Your task to perform on an android device: open app "Speedtest by Ookla" (install if not already installed) and enter user name: "hyena@outlook.com" and password: "terminators" Image 0: 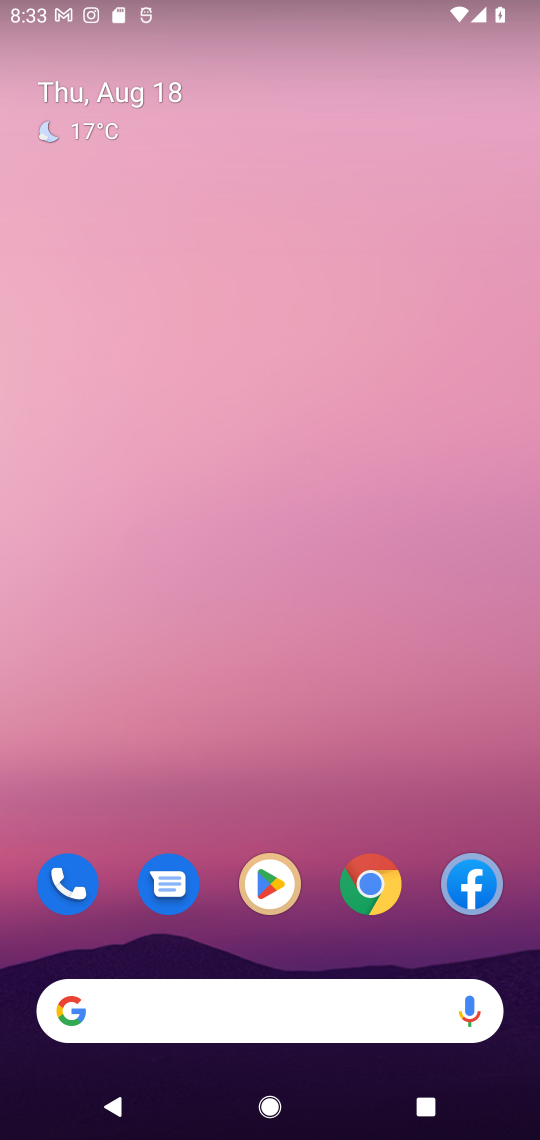
Step 0: drag from (192, 1012) to (329, 303)
Your task to perform on an android device: open app "Speedtest by Ookla" (install if not already installed) and enter user name: "hyena@outlook.com" and password: "terminators" Image 1: 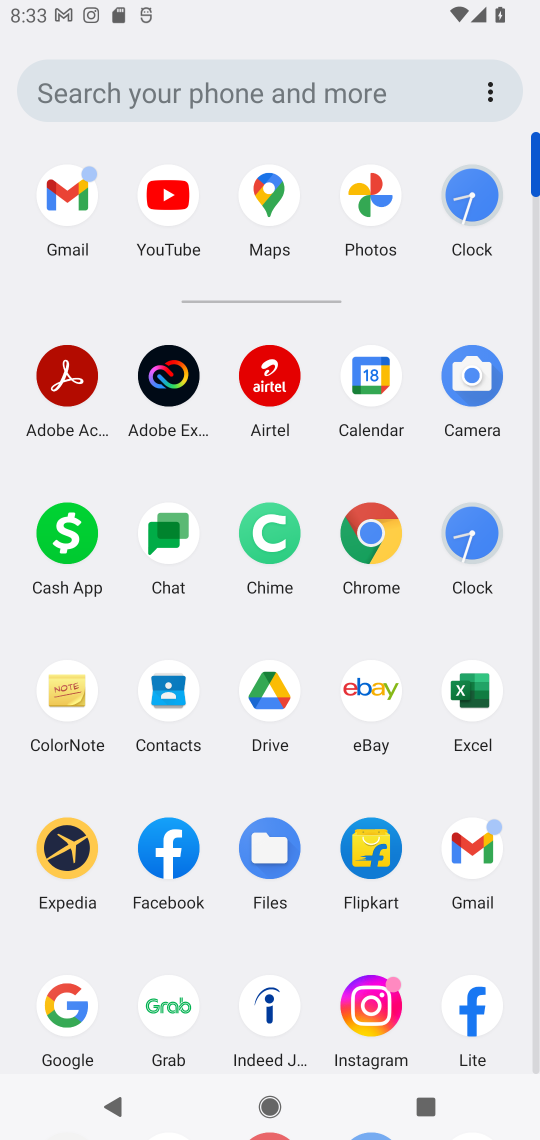
Step 1: drag from (314, 966) to (370, 213)
Your task to perform on an android device: open app "Speedtest by Ookla" (install if not already installed) and enter user name: "hyena@outlook.com" and password: "terminators" Image 2: 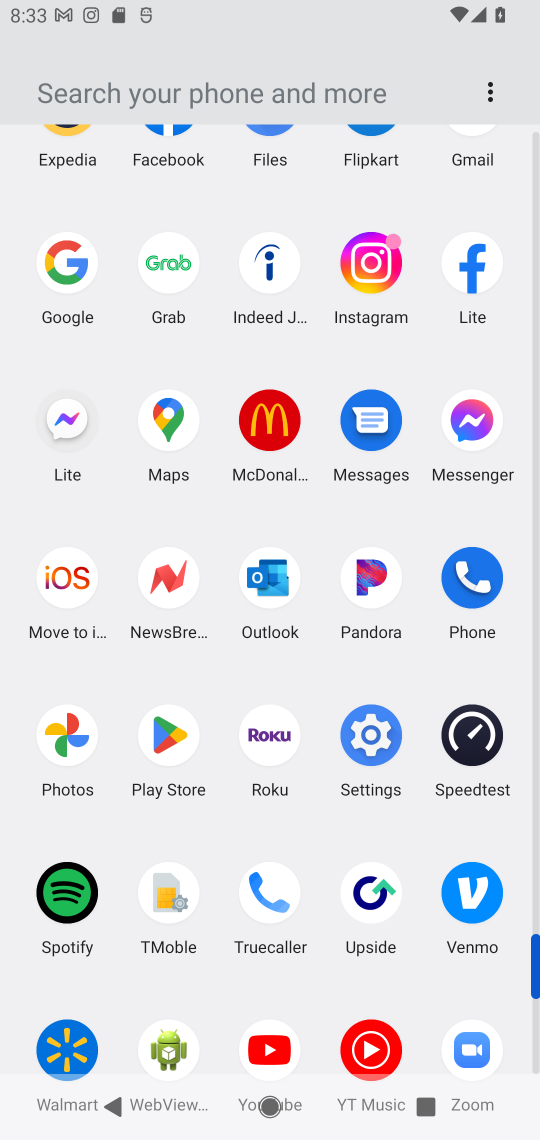
Step 2: click (171, 742)
Your task to perform on an android device: open app "Speedtest by Ookla" (install if not already installed) and enter user name: "hyena@outlook.com" and password: "terminators" Image 3: 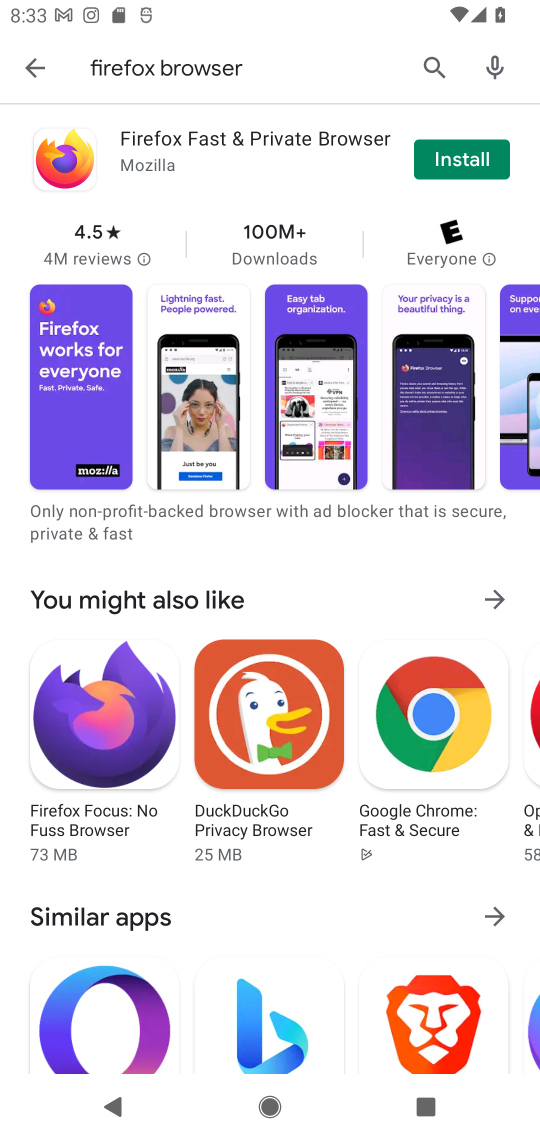
Step 3: press back button
Your task to perform on an android device: open app "Speedtest by Ookla" (install if not already installed) and enter user name: "hyena@outlook.com" and password: "terminators" Image 4: 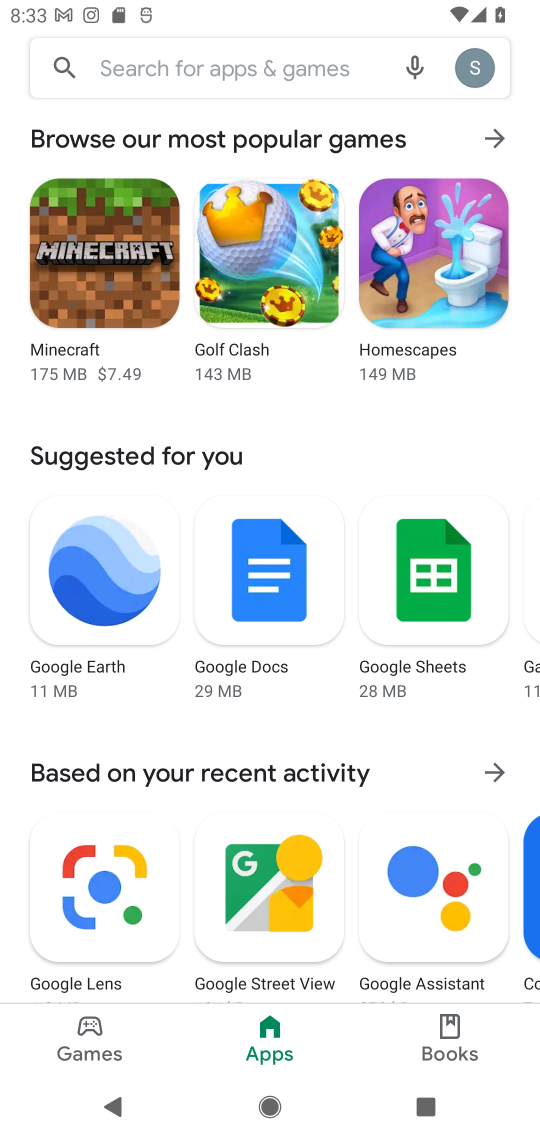
Step 4: click (268, 65)
Your task to perform on an android device: open app "Speedtest by Ookla" (install if not already installed) and enter user name: "hyena@outlook.com" and password: "terminators" Image 5: 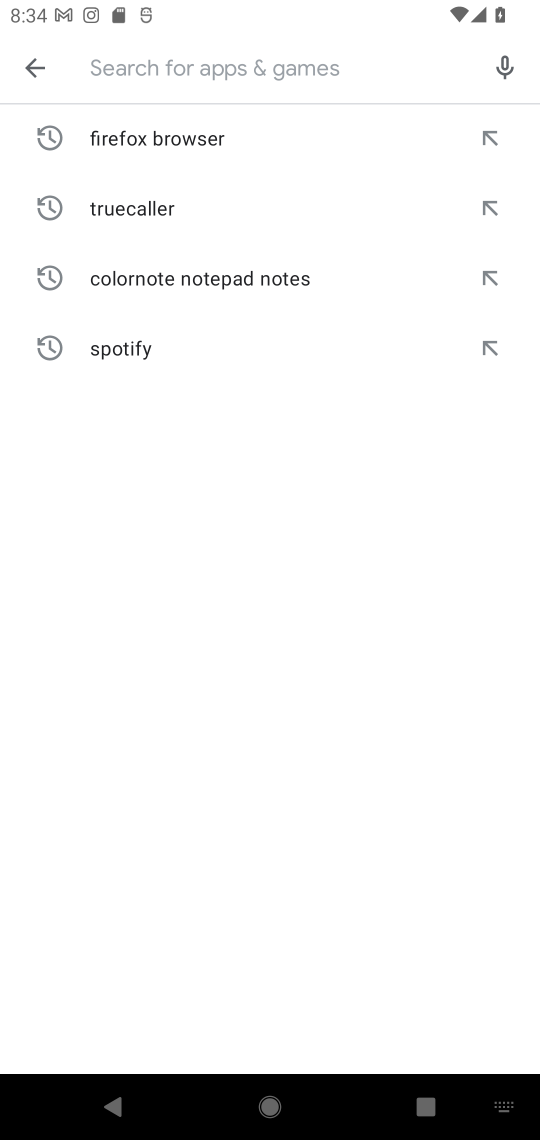
Step 5: type "Speedtest by Ookla"
Your task to perform on an android device: open app "Speedtest by Ookla" (install if not already installed) and enter user name: "hyena@outlook.com" and password: "terminators" Image 6: 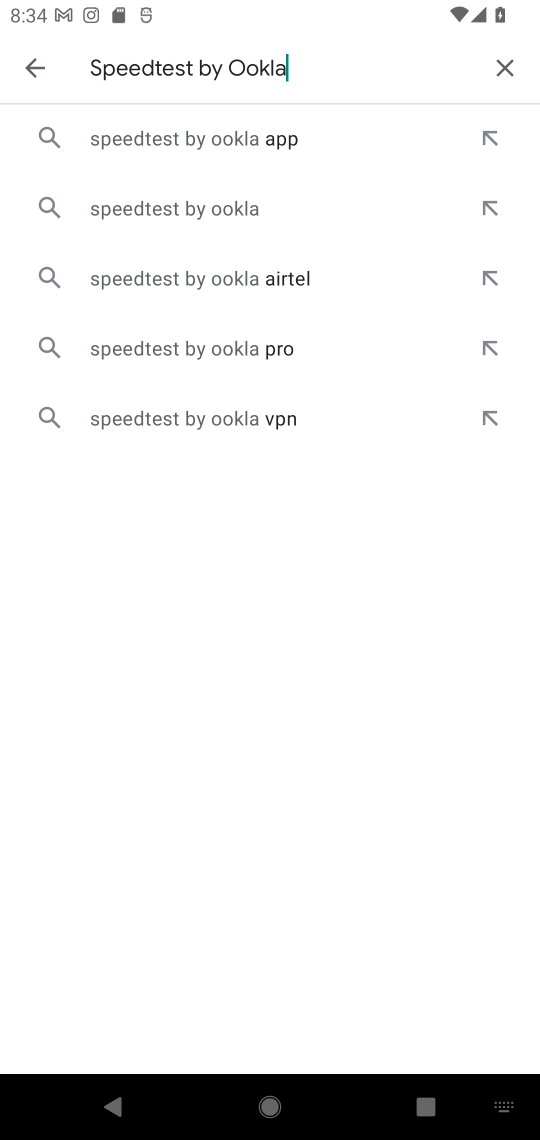
Step 6: click (202, 211)
Your task to perform on an android device: open app "Speedtest by Ookla" (install if not already installed) and enter user name: "hyena@outlook.com" and password: "terminators" Image 7: 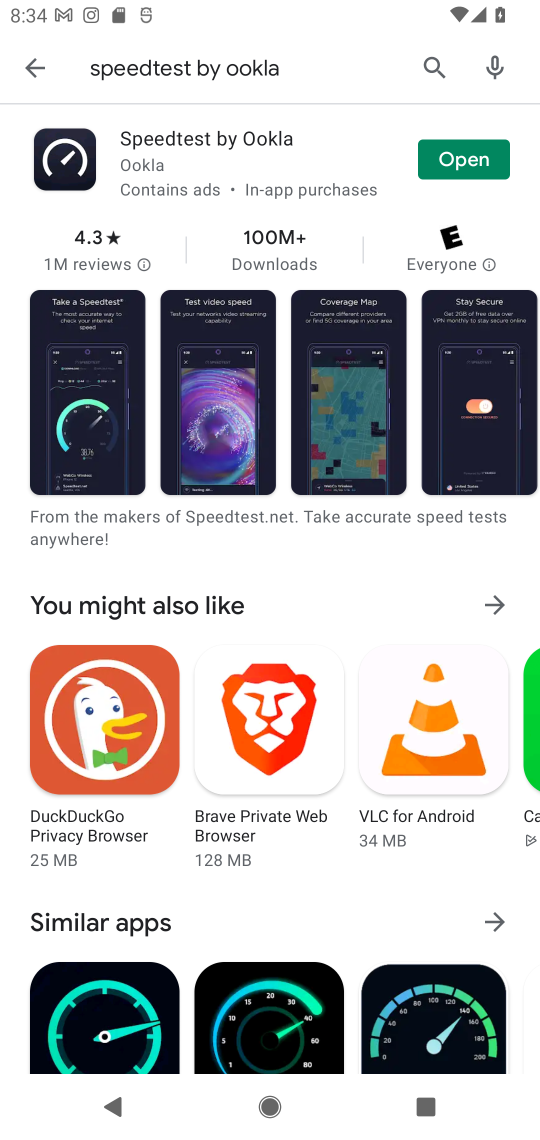
Step 7: click (470, 164)
Your task to perform on an android device: open app "Speedtest by Ookla" (install if not already installed) and enter user name: "hyena@outlook.com" and password: "terminators" Image 8: 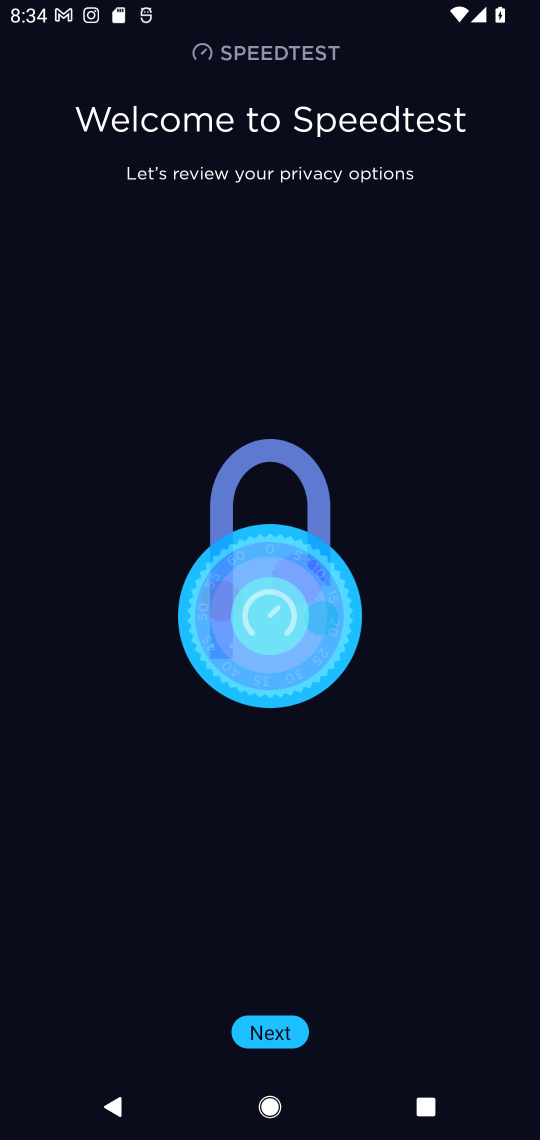
Step 8: click (282, 1033)
Your task to perform on an android device: open app "Speedtest by Ookla" (install if not already installed) and enter user name: "hyena@outlook.com" and password: "terminators" Image 9: 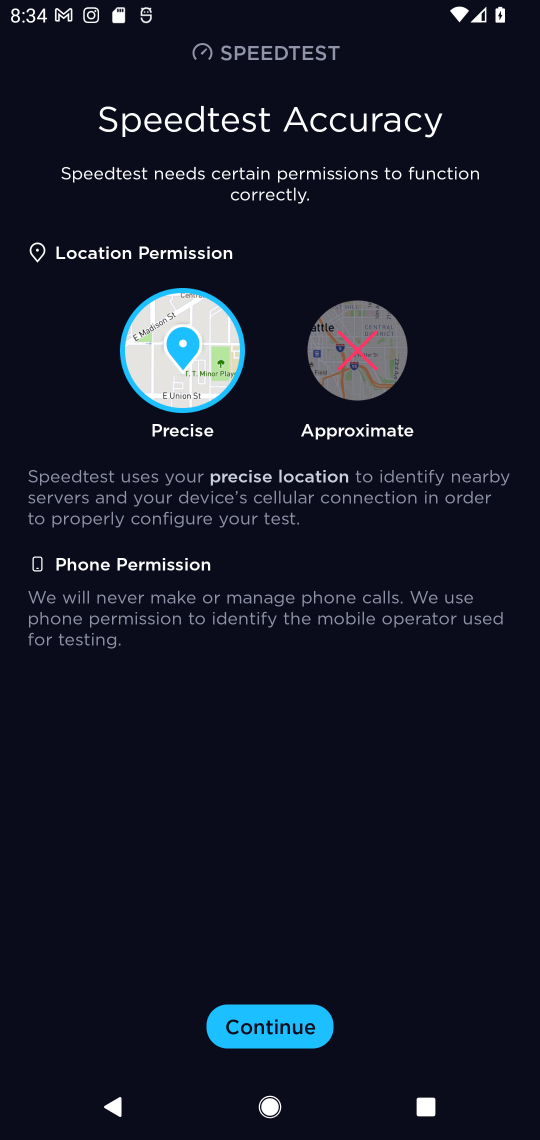
Step 9: click (282, 1033)
Your task to perform on an android device: open app "Speedtest by Ookla" (install if not already installed) and enter user name: "hyena@outlook.com" and password: "terminators" Image 10: 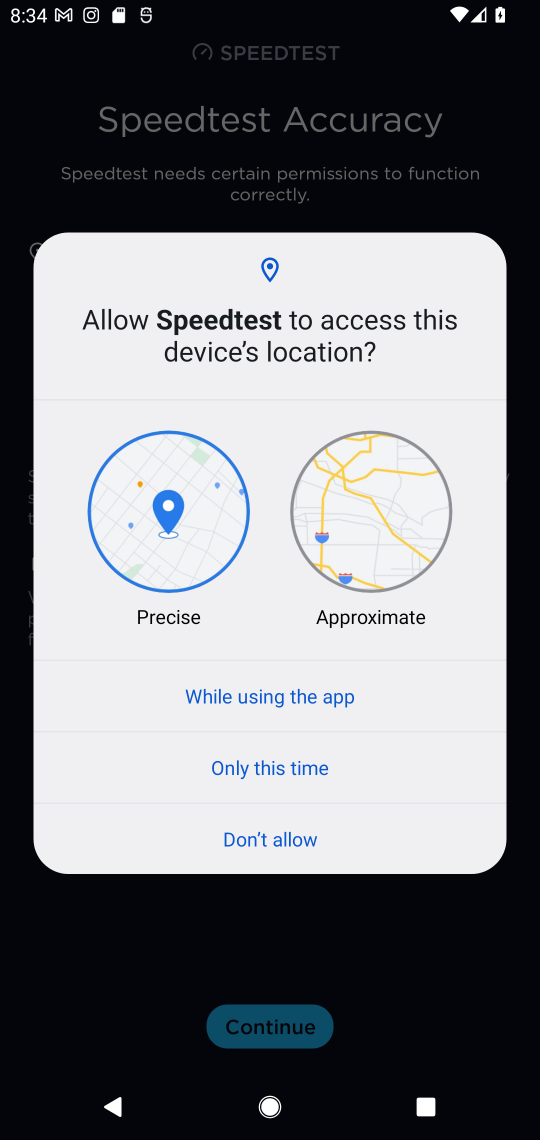
Step 10: click (292, 694)
Your task to perform on an android device: open app "Speedtest by Ookla" (install if not already installed) and enter user name: "hyena@outlook.com" and password: "terminators" Image 11: 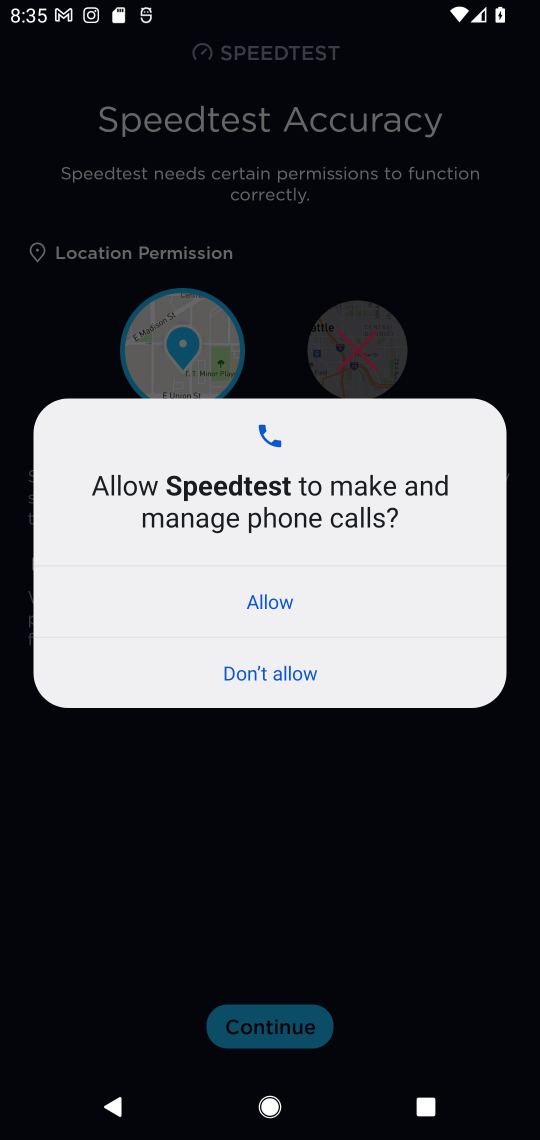
Step 11: click (270, 604)
Your task to perform on an android device: open app "Speedtest by Ookla" (install if not already installed) and enter user name: "hyena@outlook.com" and password: "terminators" Image 12: 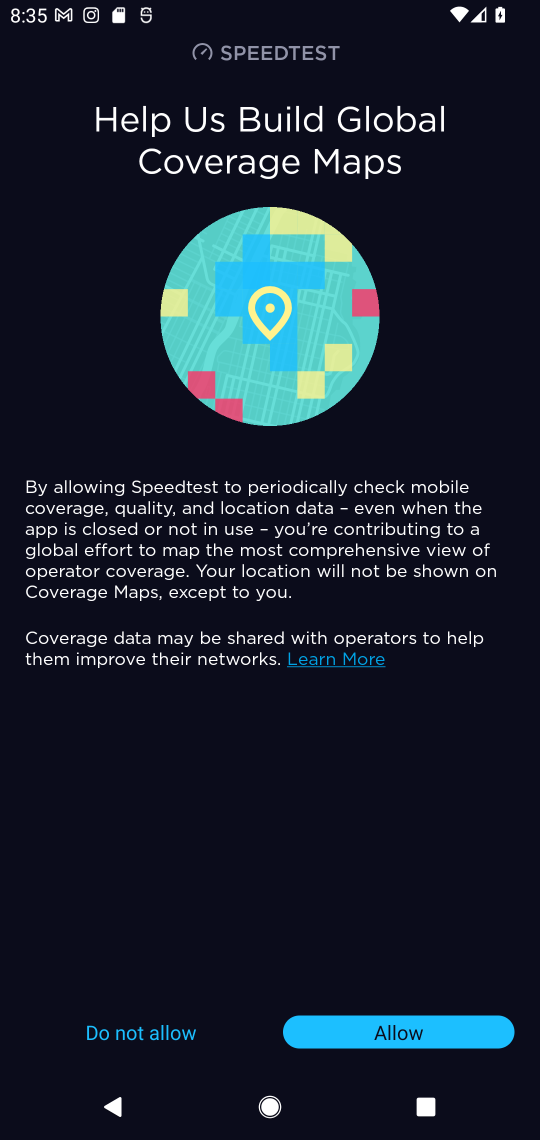
Step 12: click (362, 1033)
Your task to perform on an android device: open app "Speedtest by Ookla" (install if not already installed) and enter user name: "hyena@outlook.com" and password: "terminators" Image 13: 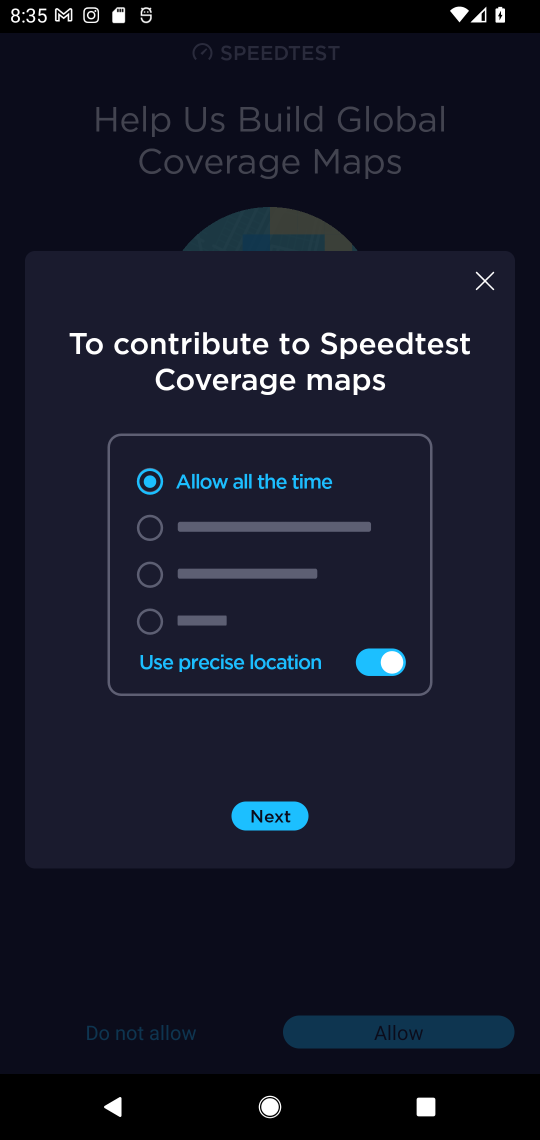
Step 13: click (362, 1033)
Your task to perform on an android device: open app "Speedtest by Ookla" (install if not already installed) and enter user name: "hyena@outlook.com" and password: "terminators" Image 14: 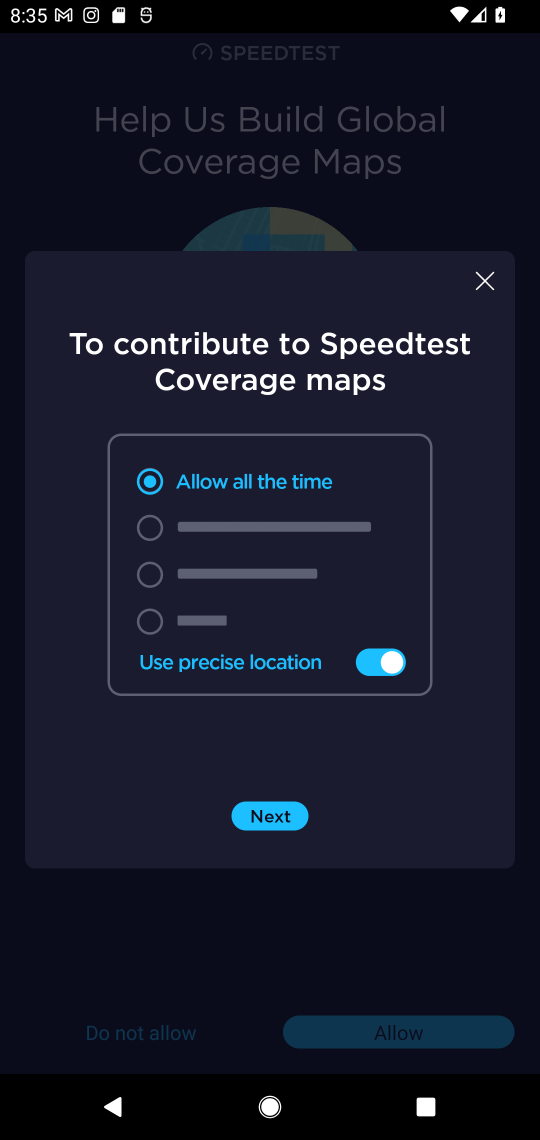
Step 14: click (246, 815)
Your task to perform on an android device: open app "Speedtest by Ookla" (install if not already installed) and enter user name: "hyena@outlook.com" and password: "terminators" Image 15: 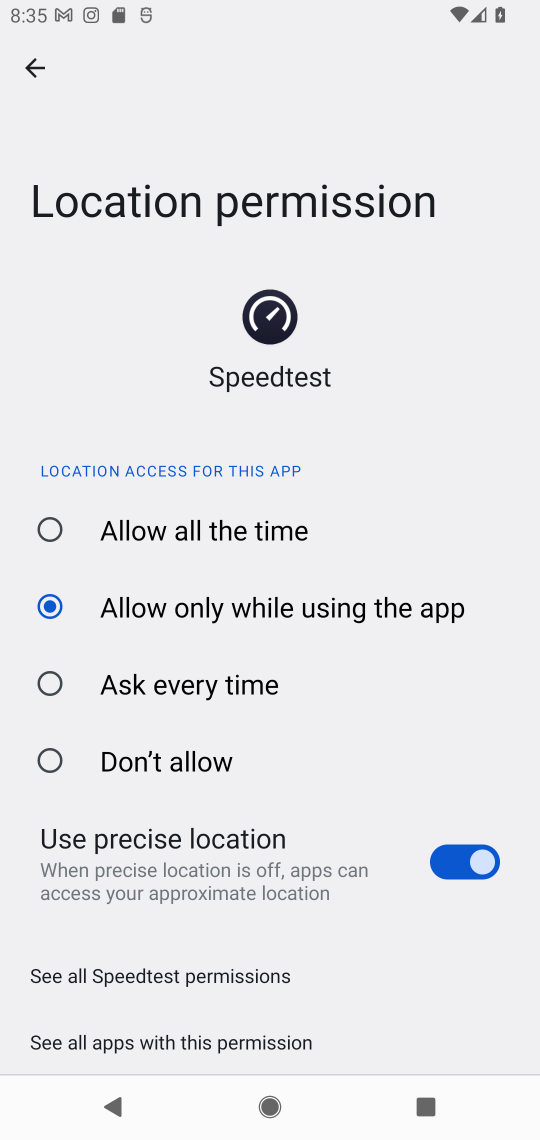
Step 15: click (47, 525)
Your task to perform on an android device: open app "Speedtest by Ookla" (install if not already installed) and enter user name: "hyena@outlook.com" and password: "terminators" Image 16: 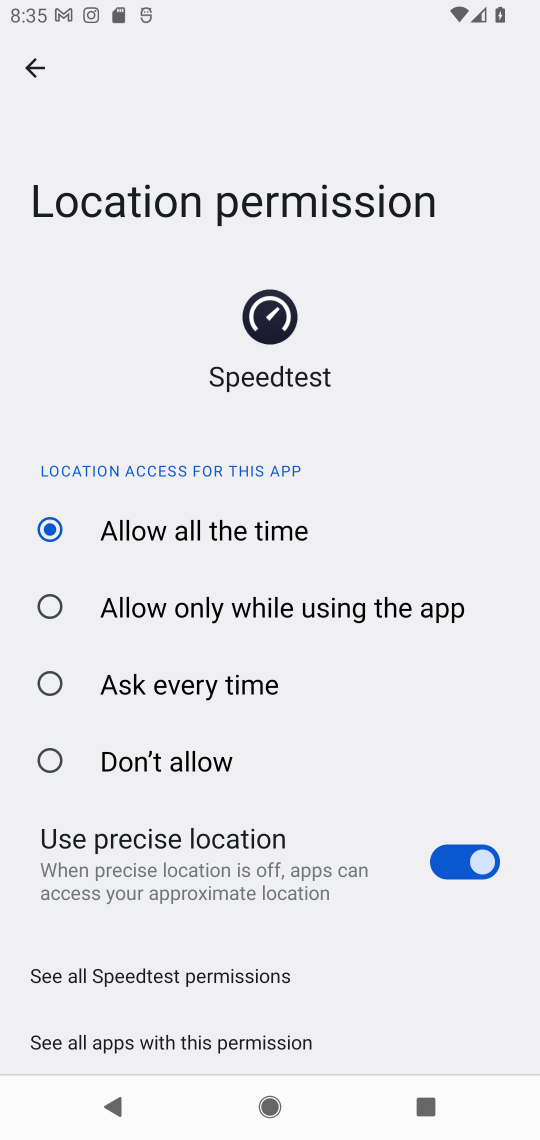
Step 16: task complete